Your task to perform on an android device: Open settings Image 0: 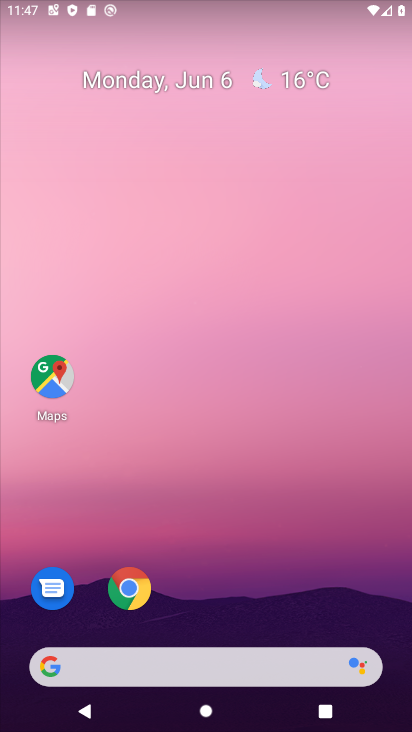
Step 0: drag from (157, 706) to (319, 11)
Your task to perform on an android device: Open settings Image 1: 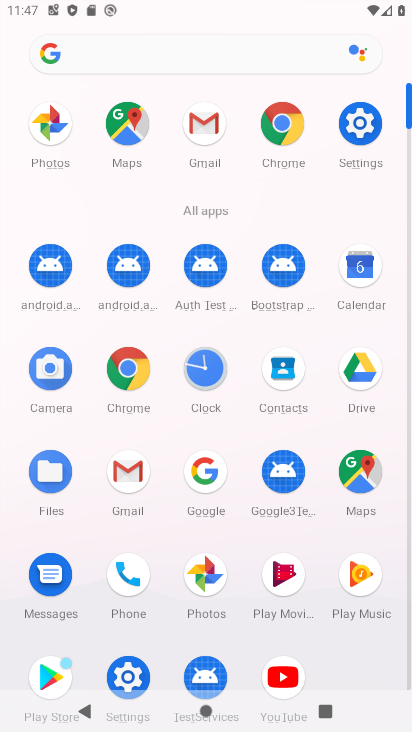
Step 1: click (365, 122)
Your task to perform on an android device: Open settings Image 2: 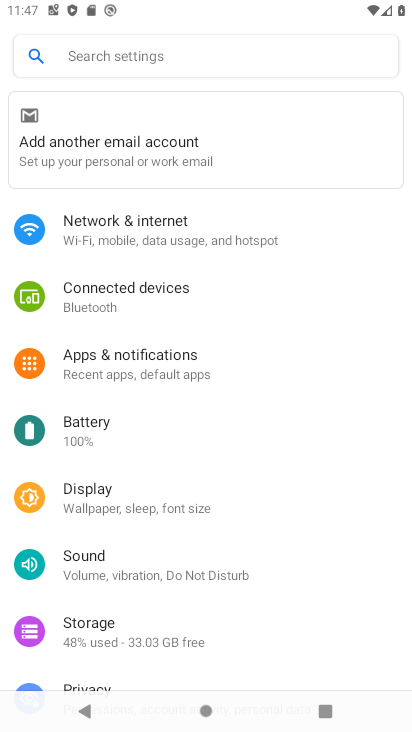
Step 2: task complete